Your task to perform on an android device: install app "Flipkart Online Shopping App" Image 0: 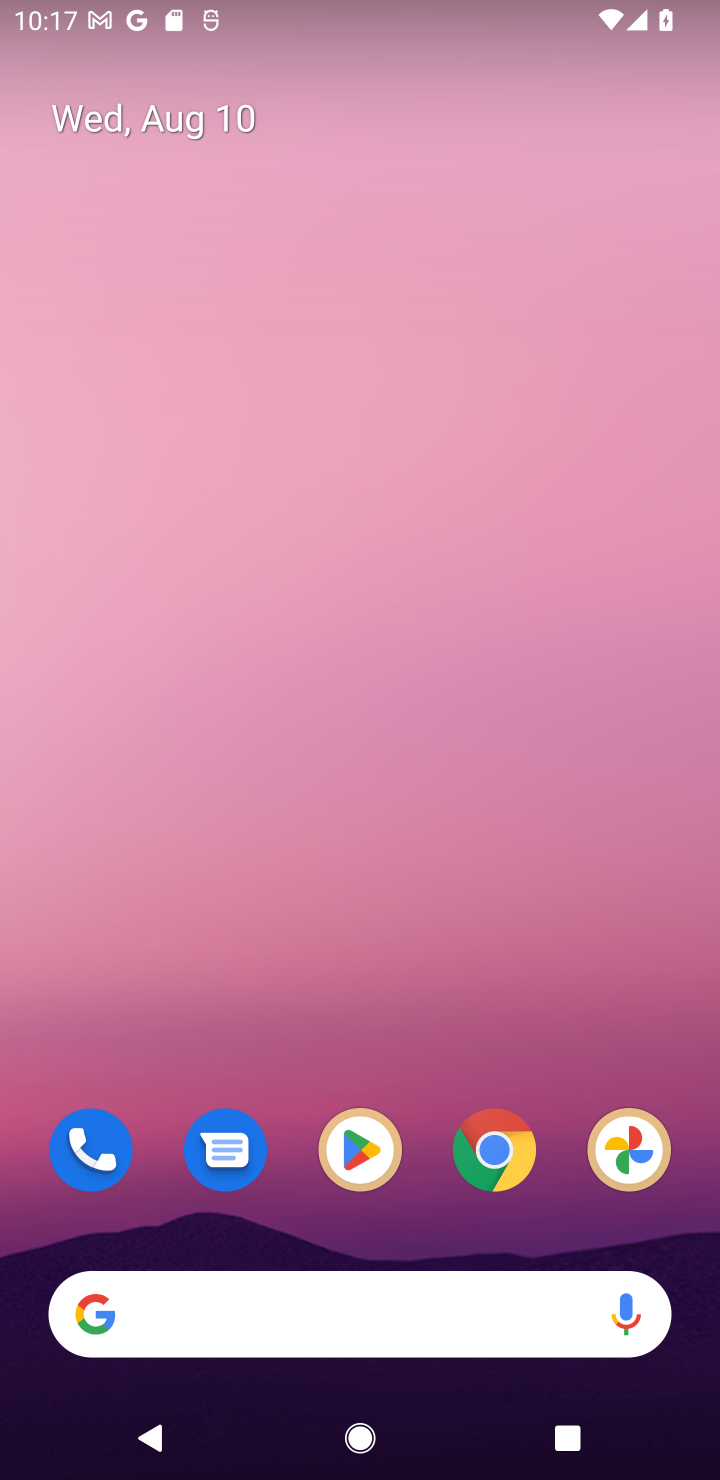
Step 0: click (376, 1152)
Your task to perform on an android device: install app "Flipkart Online Shopping App" Image 1: 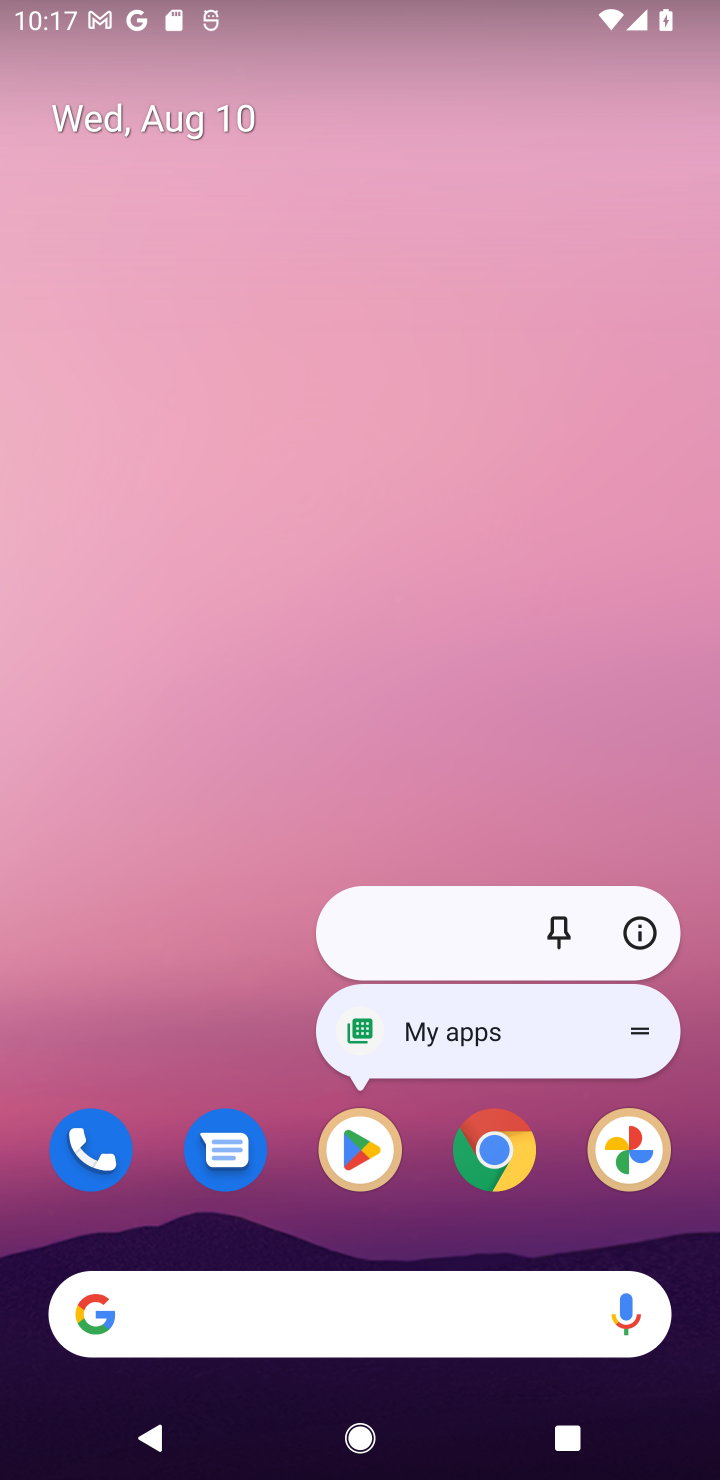
Step 1: click (374, 1160)
Your task to perform on an android device: install app "Flipkart Online Shopping App" Image 2: 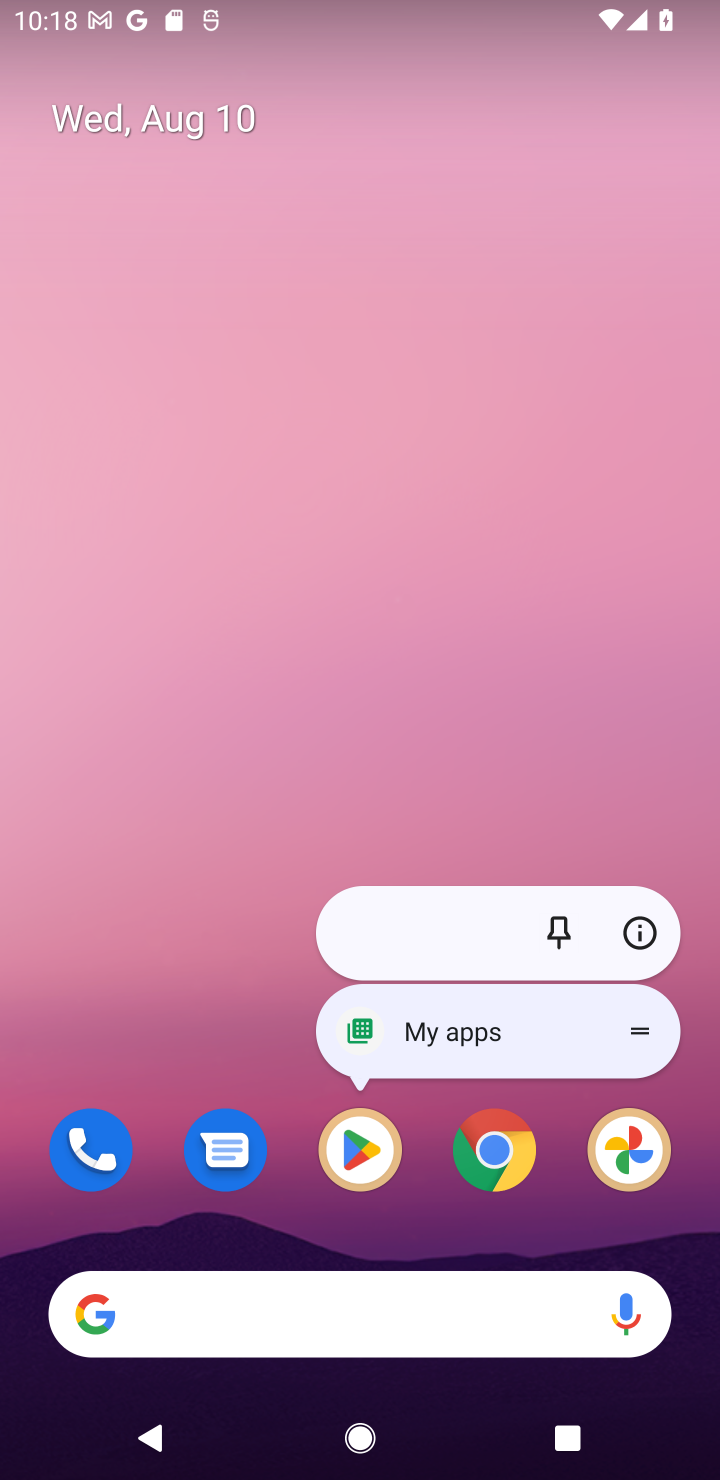
Step 2: click (374, 1160)
Your task to perform on an android device: install app "Flipkart Online Shopping App" Image 3: 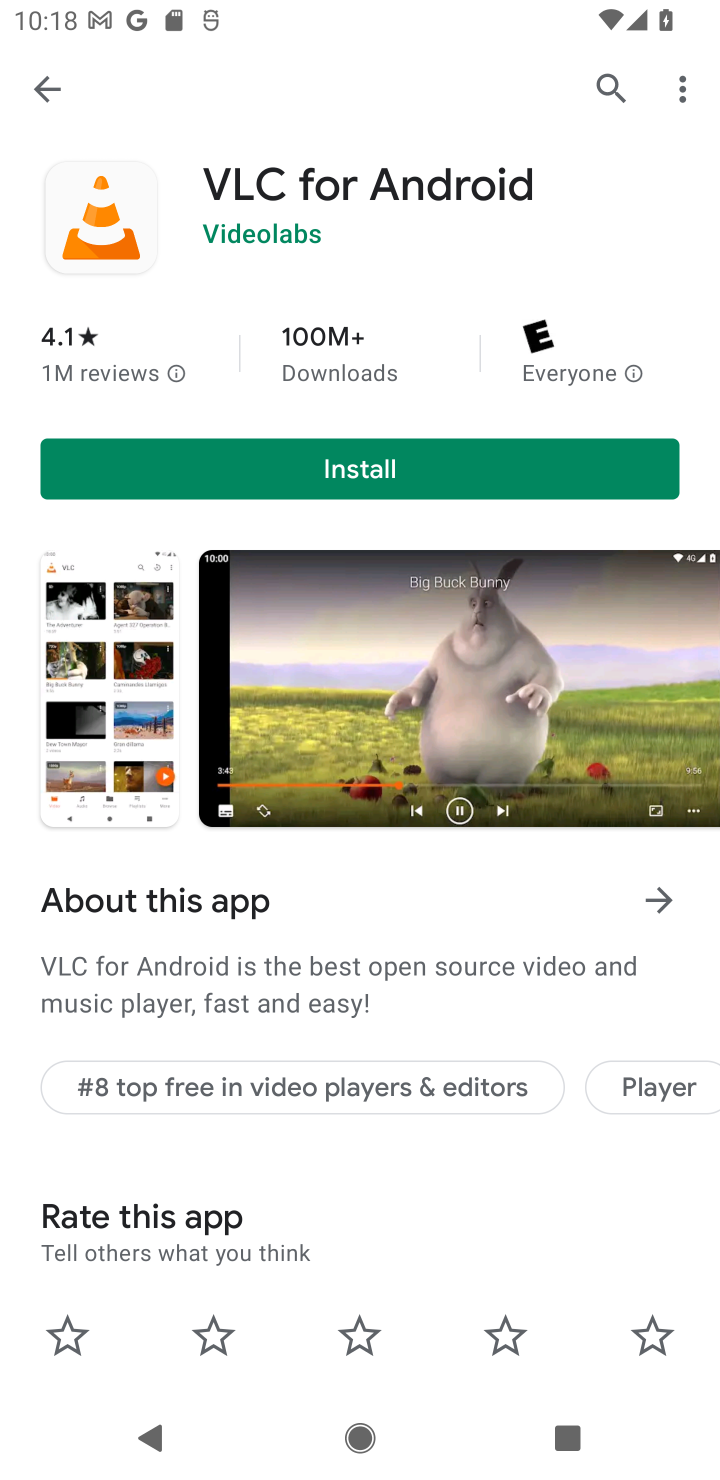
Step 3: click (607, 73)
Your task to perform on an android device: install app "Flipkart Online Shopping App" Image 4: 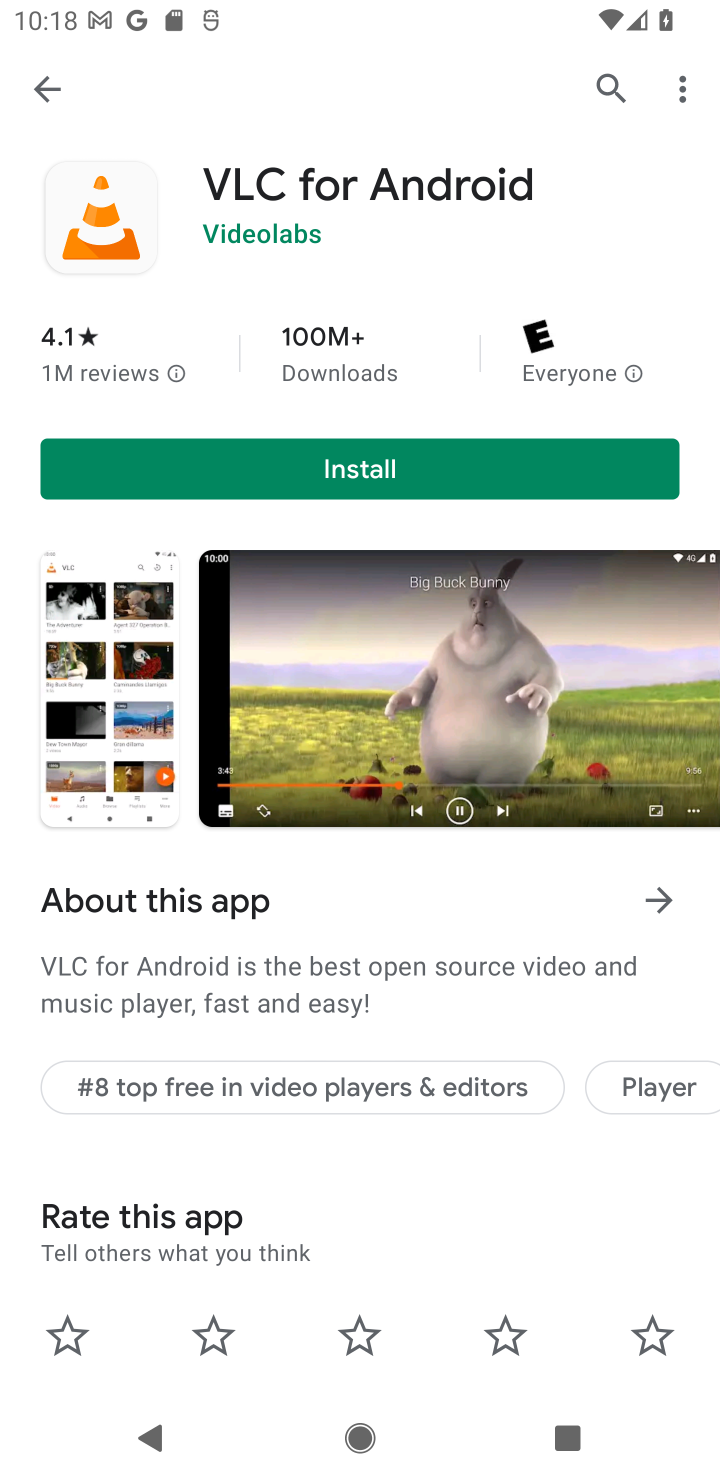
Step 4: click (607, 92)
Your task to perform on an android device: install app "Flipkart Online Shopping App" Image 5: 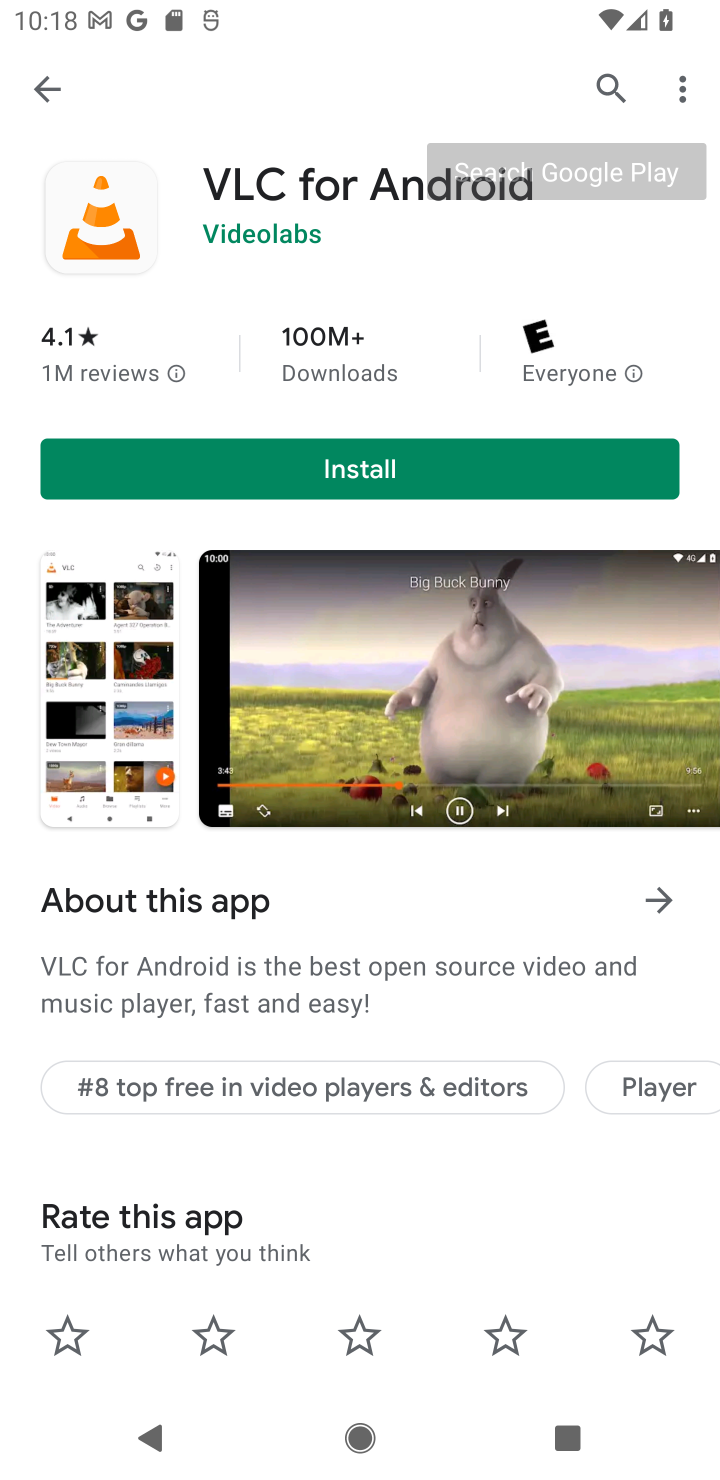
Step 5: click (607, 92)
Your task to perform on an android device: install app "Flipkart Online Shopping App" Image 6: 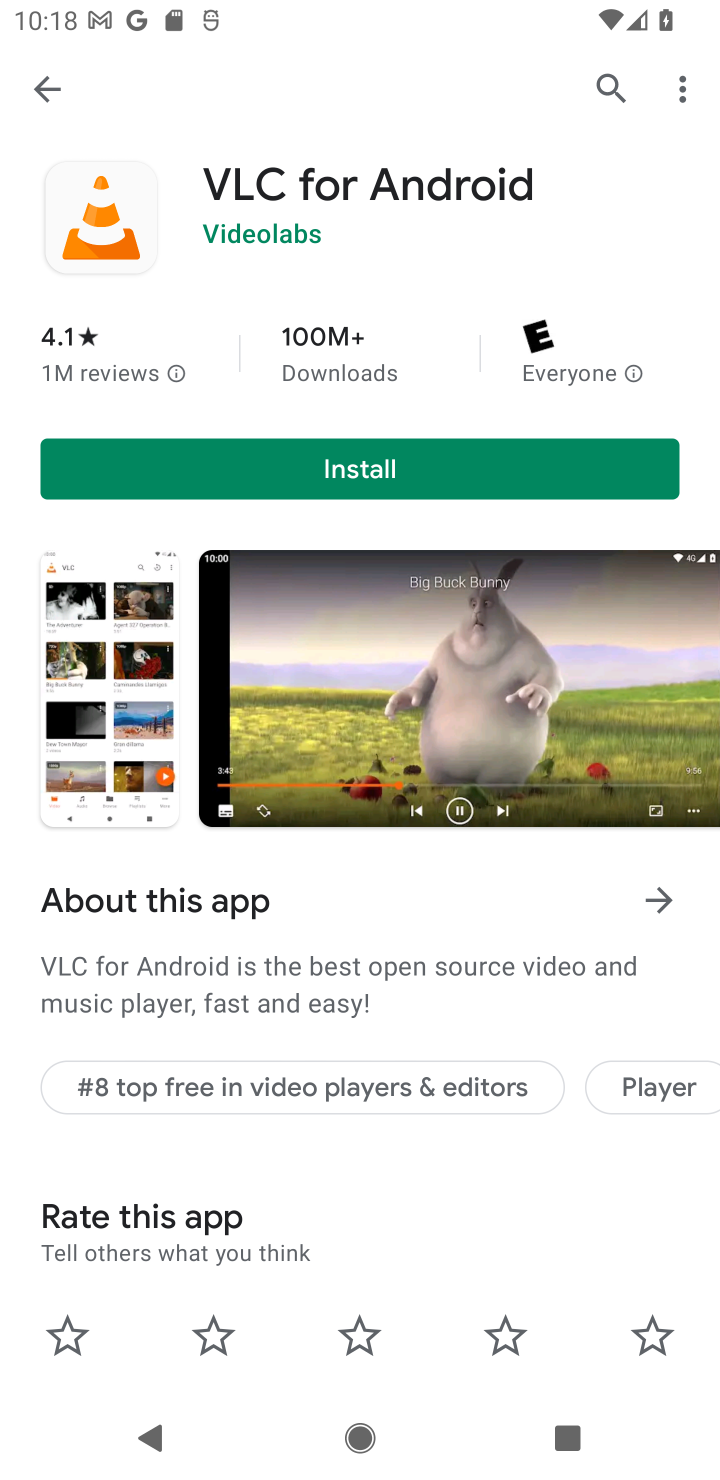
Step 6: click (595, 80)
Your task to perform on an android device: install app "Flipkart Online Shopping App" Image 7: 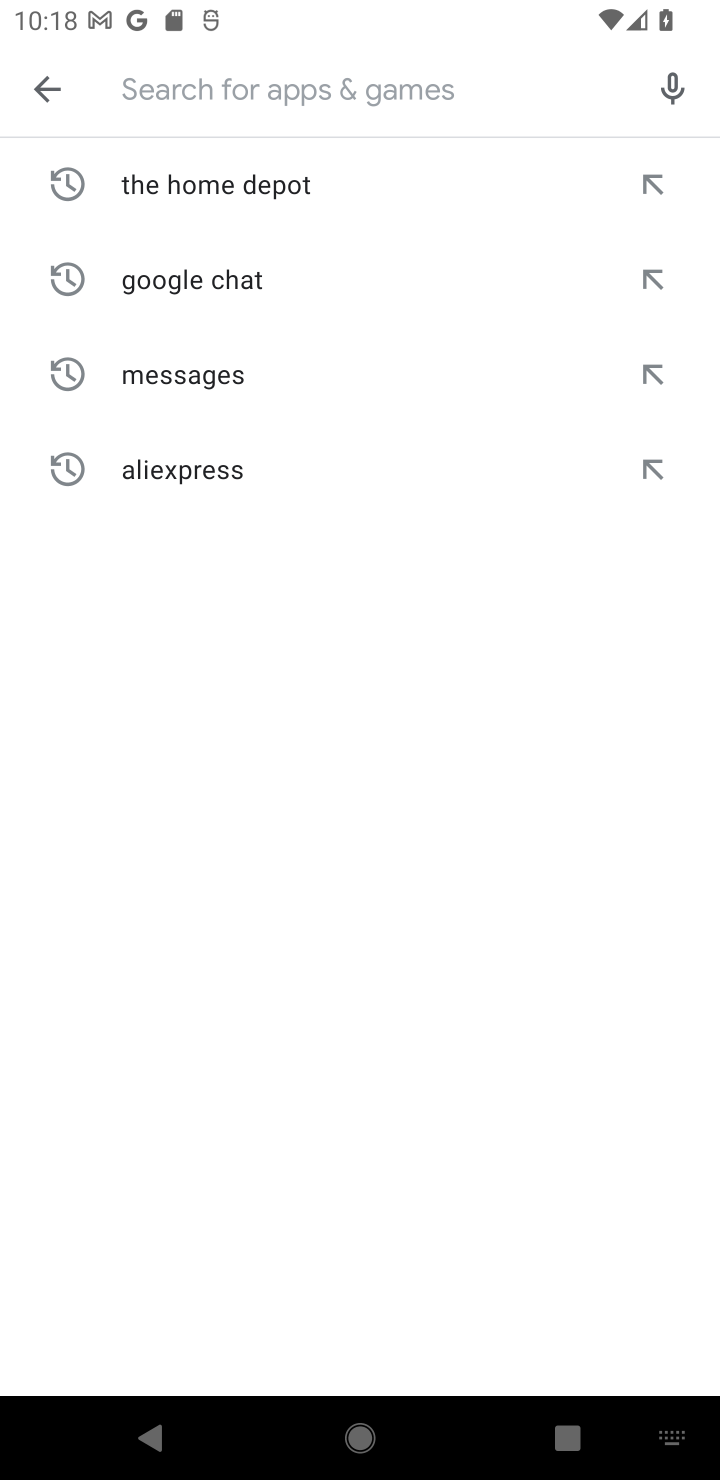
Step 7: type "Flipkart Online Shopping App"
Your task to perform on an android device: install app "Flipkart Online Shopping App" Image 8: 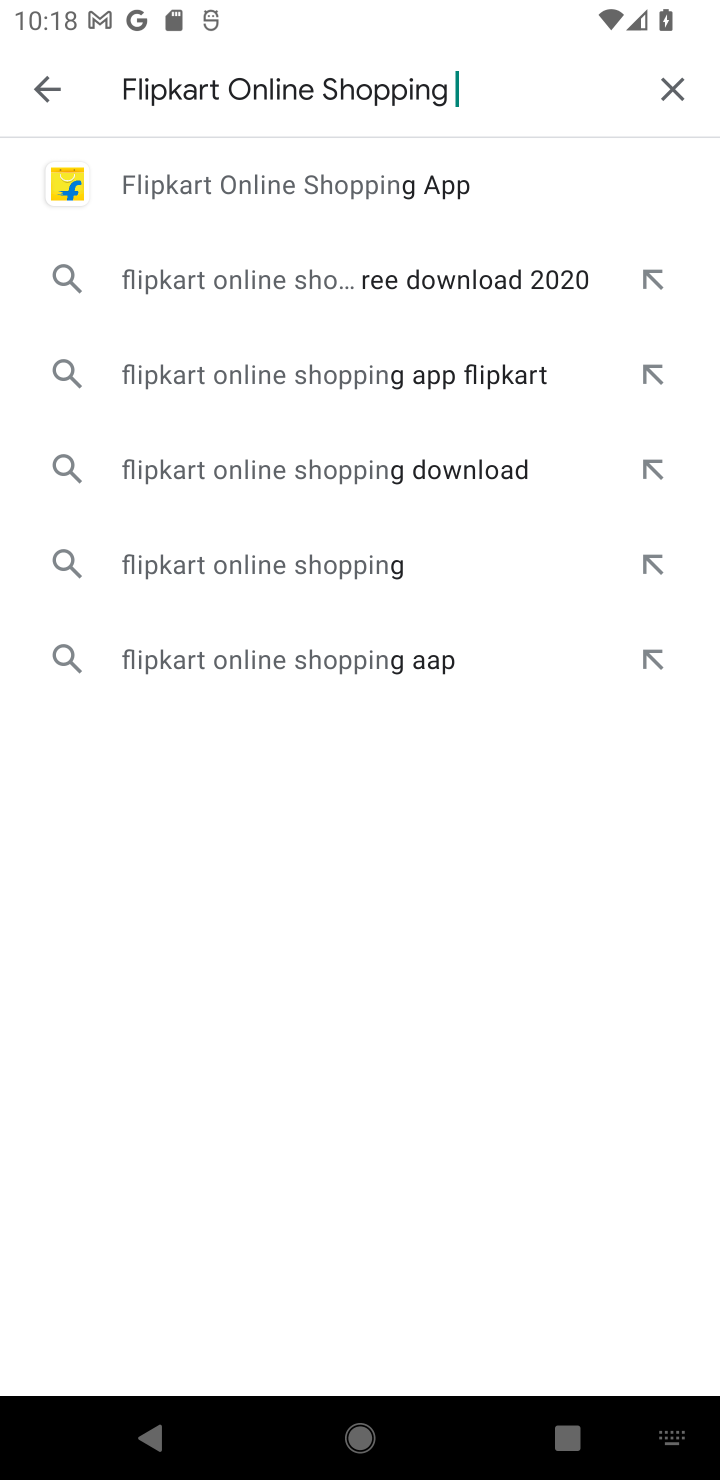
Step 8: type ""
Your task to perform on an android device: install app "Flipkart Online Shopping App" Image 9: 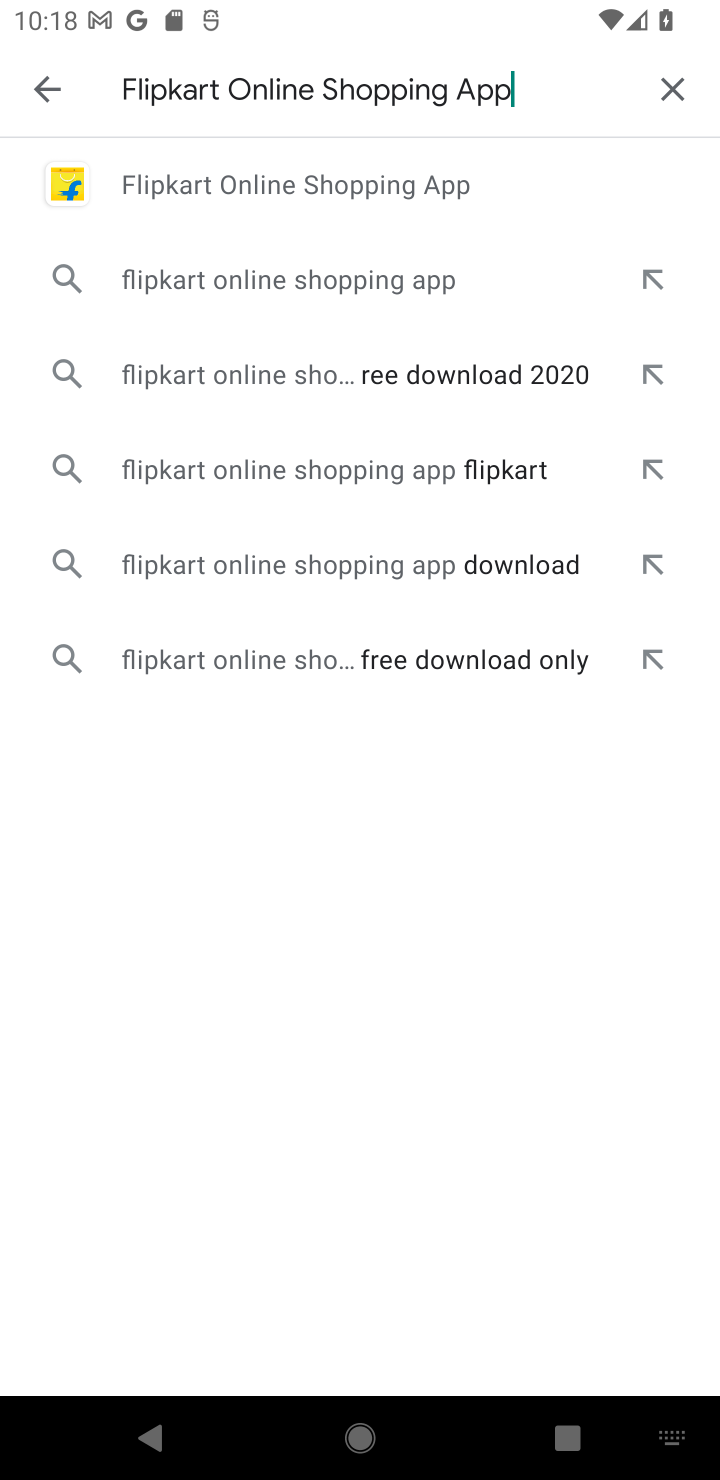
Step 9: click (396, 192)
Your task to perform on an android device: install app "Flipkart Online Shopping App" Image 10: 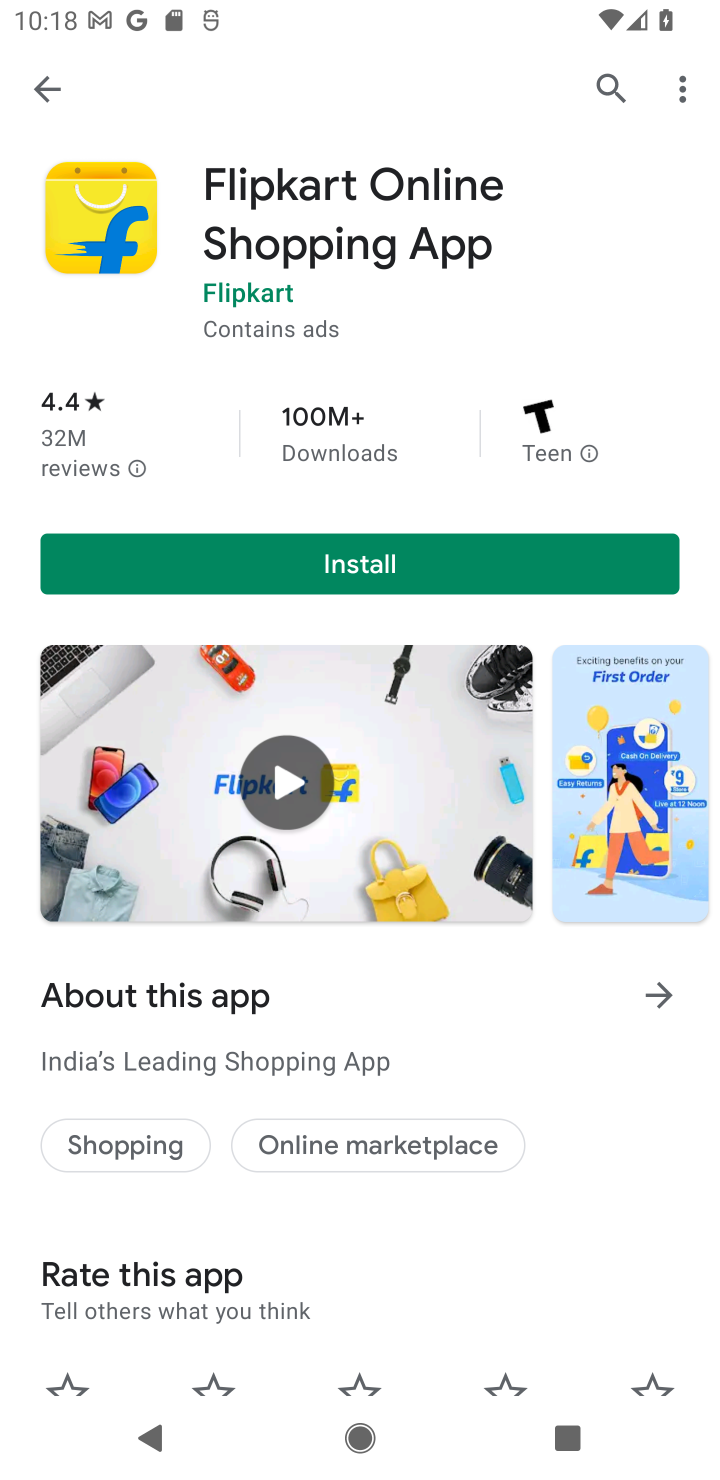
Step 10: click (409, 587)
Your task to perform on an android device: install app "Flipkart Online Shopping App" Image 11: 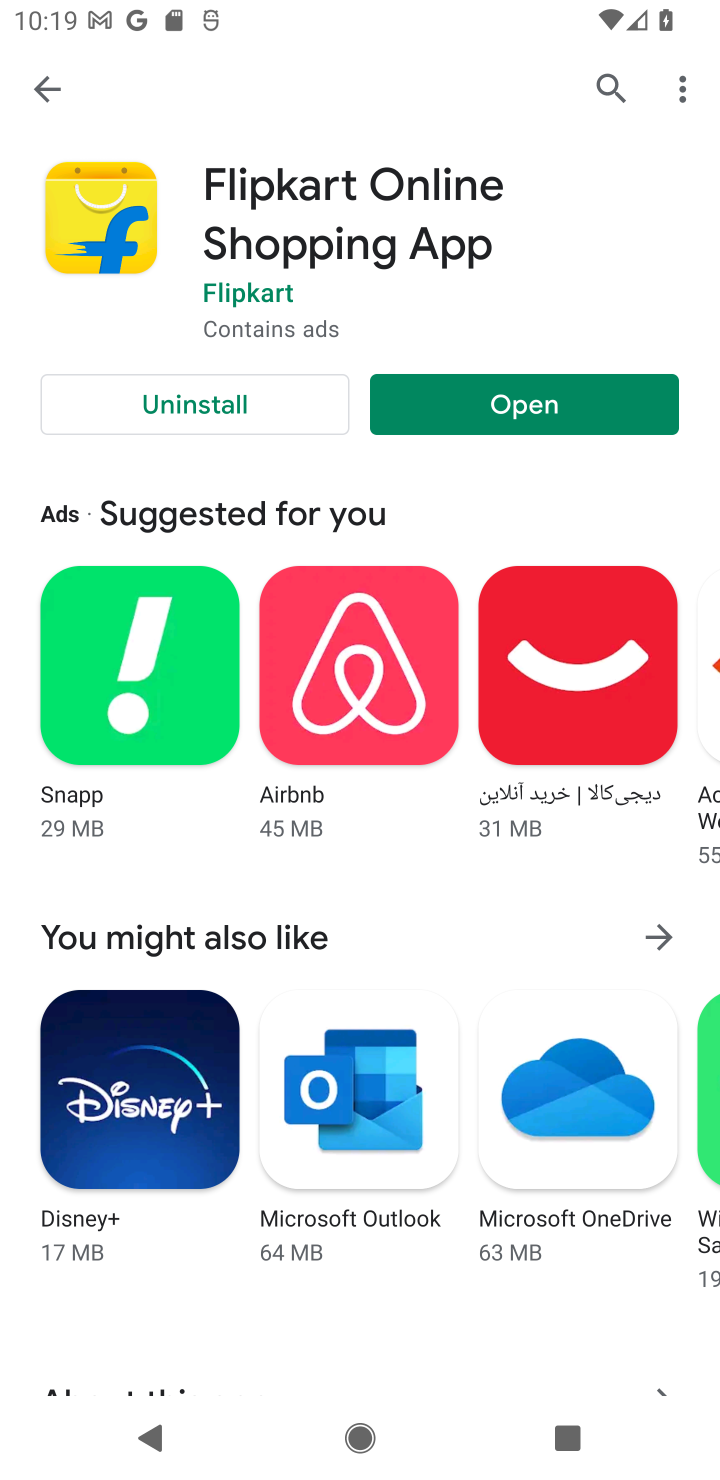
Step 11: task complete